Your task to perform on an android device: check out phone information Image 0: 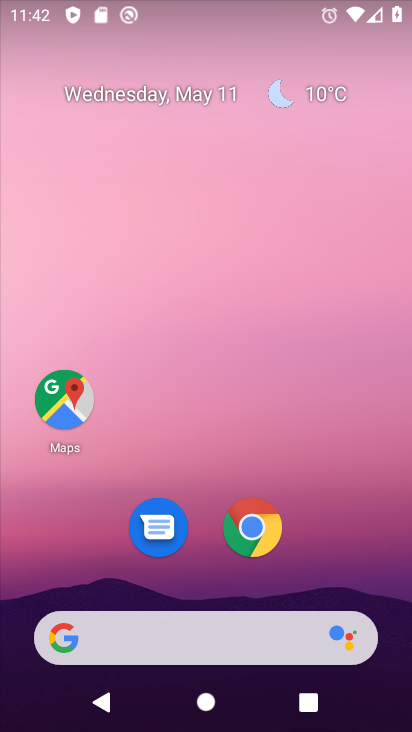
Step 0: drag from (199, 556) to (334, 3)
Your task to perform on an android device: check out phone information Image 1: 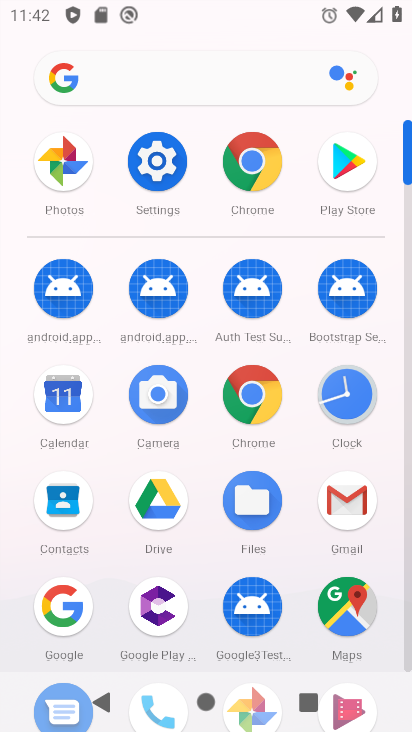
Step 1: click (169, 182)
Your task to perform on an android device: check out phone information Image 2: 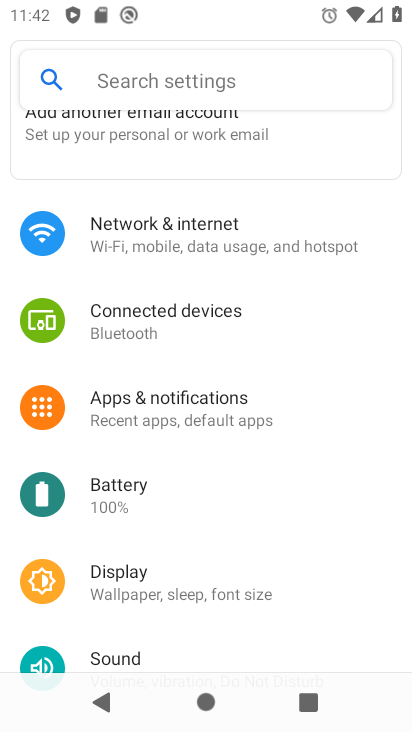
Step 2: drag from (182, 505) to (200, 186)
Your task to perform on an android device: check out phone information Image 3: 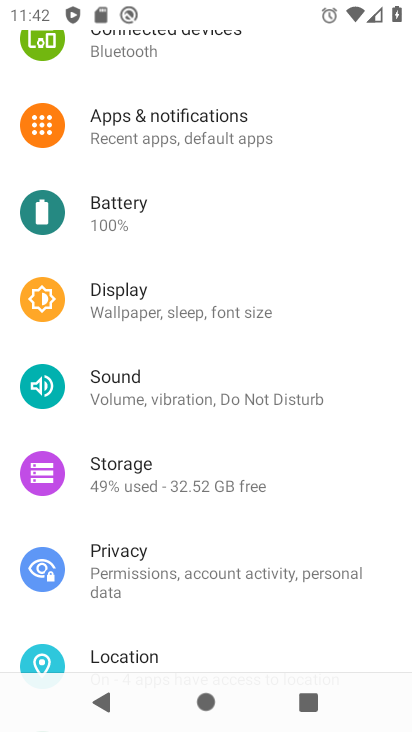
Step 3: drag from (142, 582) to (216, 106)
Your task to perform on an android device: check out phone information Image 4: 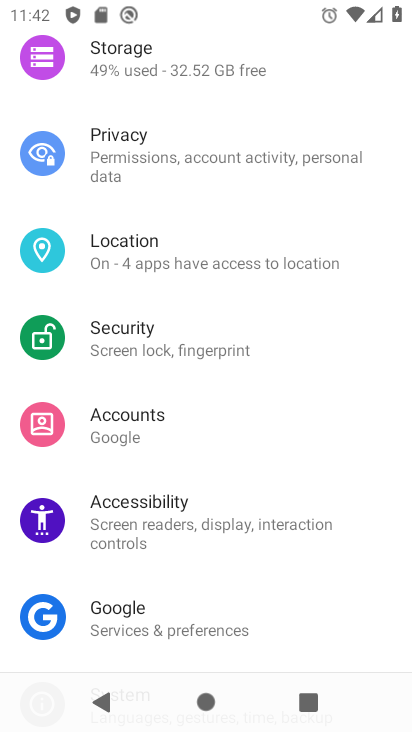
Step 4: drag from (152, 597) to (207, 188)
Your task to perform on an android device: check out phone information Image 5: 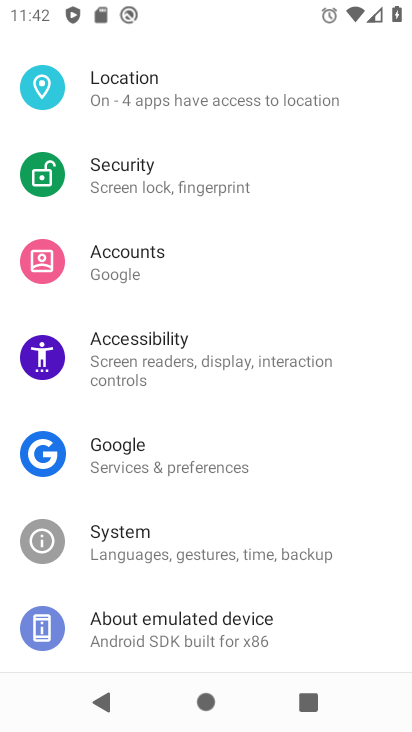
Step 5: click (137, 628)
Your task to perform on an android device: check out phone information Image 6: 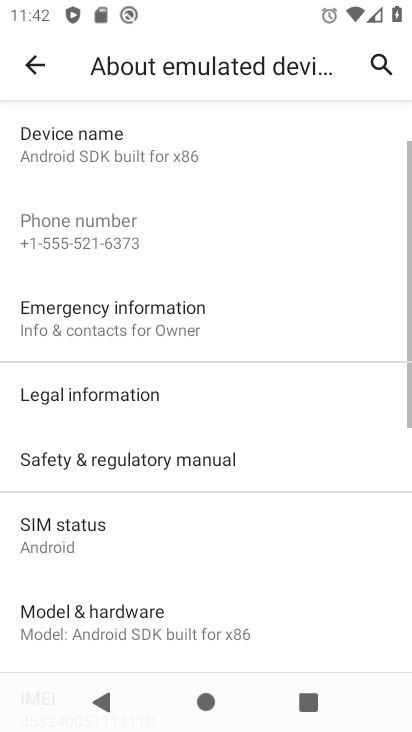
Step 6: task complete